Your task to perform on an android device: toggle location history Image 0: 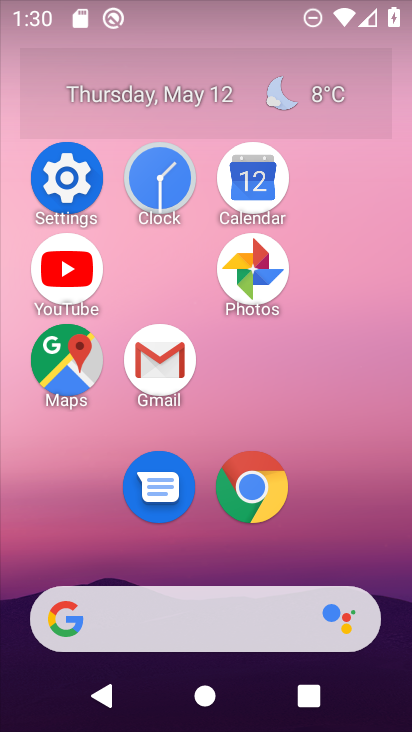
Step 0: click (46, 187)
Your task to perform on an android device: toggle location history Image 1: 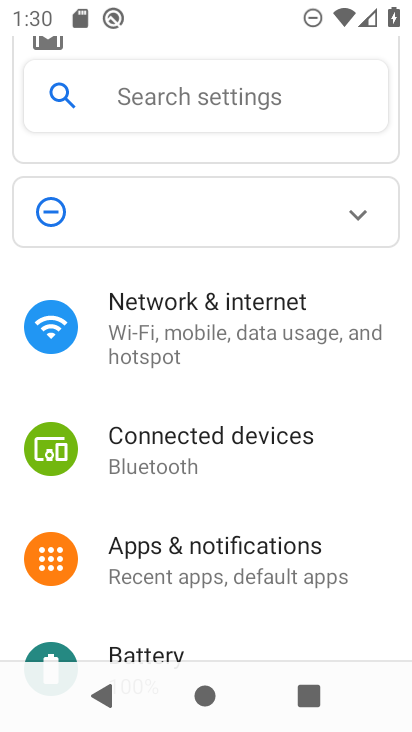
Step 1: drag from (228, 596) to (258, 172)
Your task to perform on an android device: toggle location history Image 2: 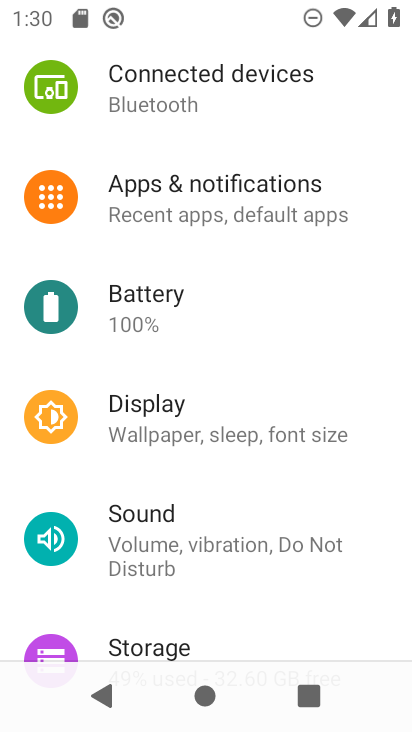
Step 2: drag from (205, 629) to (253, 221)
Your task to perform on an android device: toggle location history Image 3: 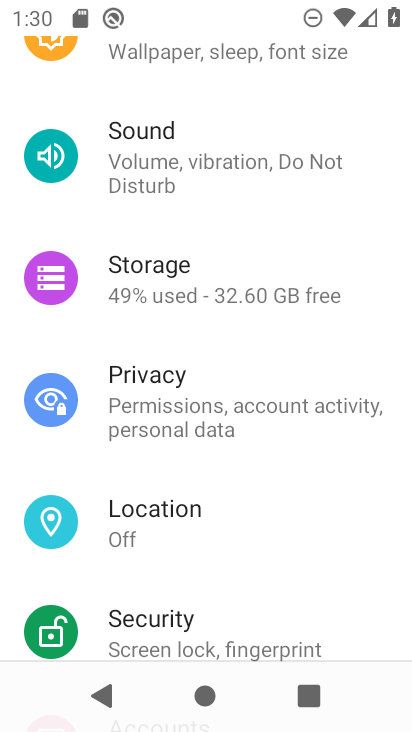
Step 3: click (215, 511)
Your task to perform on an android device: toggle location history Image 4: 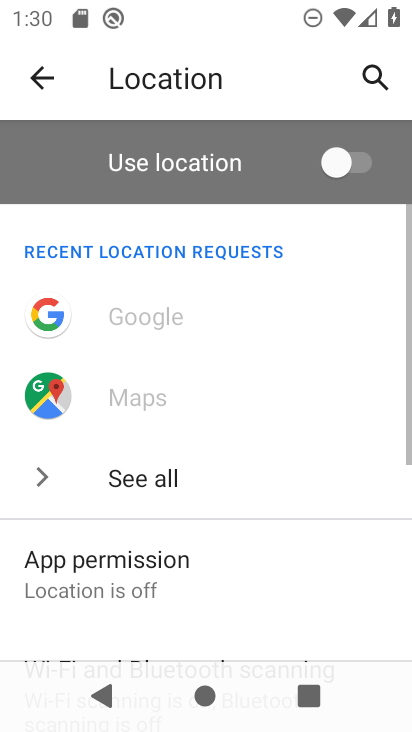
Step 4: drag from (235, 587) to (240, 161)
Your task to perform on an android device: toggle location history Image 5: 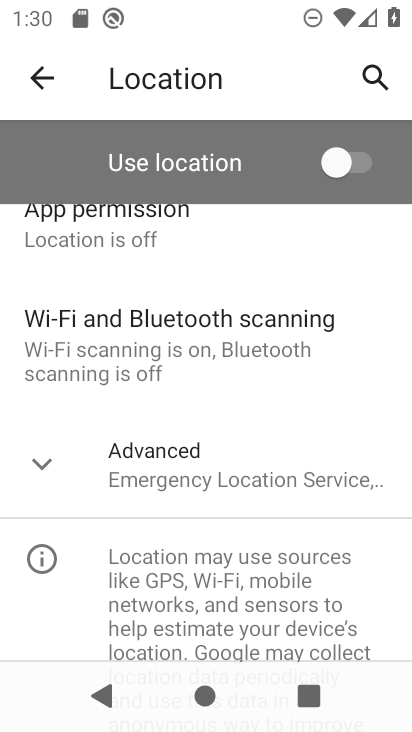
Step 5: click (272, 453)
Your task to perform on an android device: toggle location history Image 6: 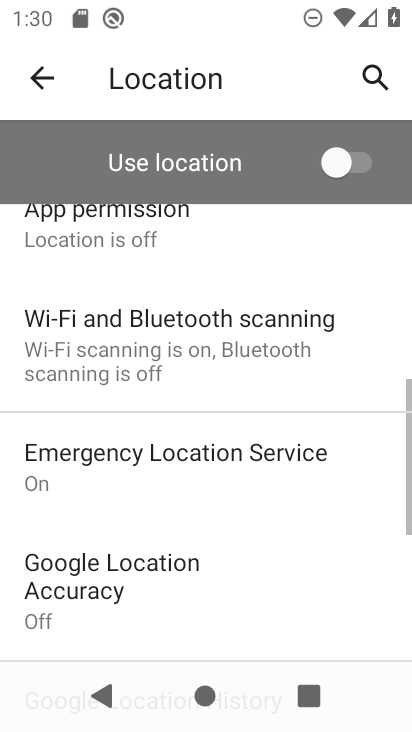
Step 6: drag from (260, 614) to (248, 237)
Your task to perform on an android device: toggle location history Image 7: 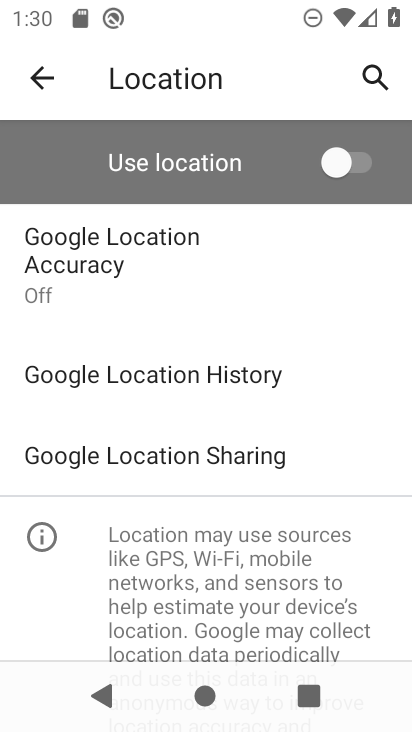
Step 7: click (282, 368)
Your task to perform on an android device: toggle location history Image 8: 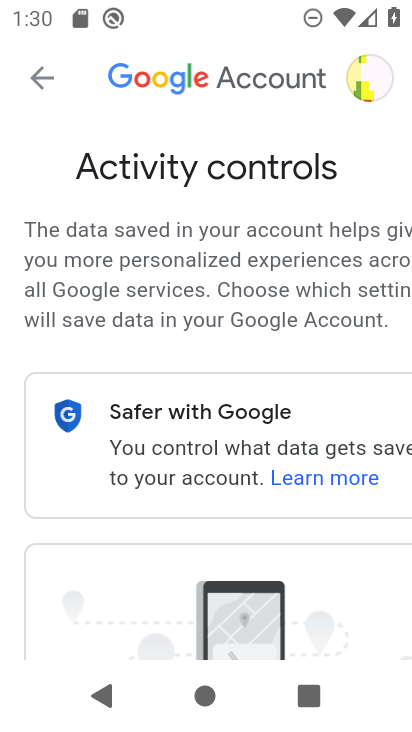
Step 8: drag from (341, 570) to (324, 127)
Your task to perform on an android device: toggle location history Image 9: 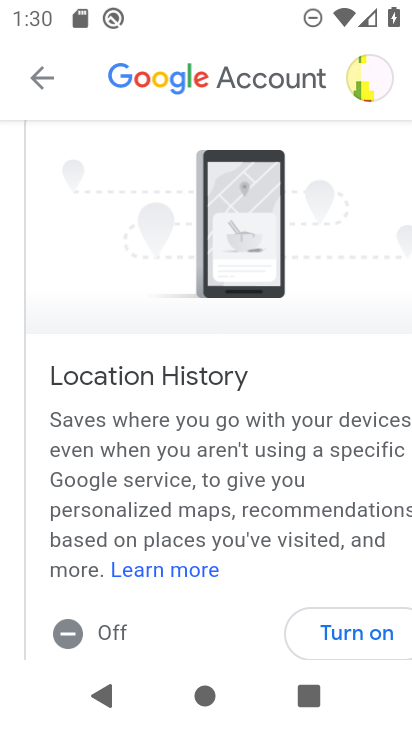
Step 9: click (359, 640)
Your task to perform on an android device: toggle location history Image 10: 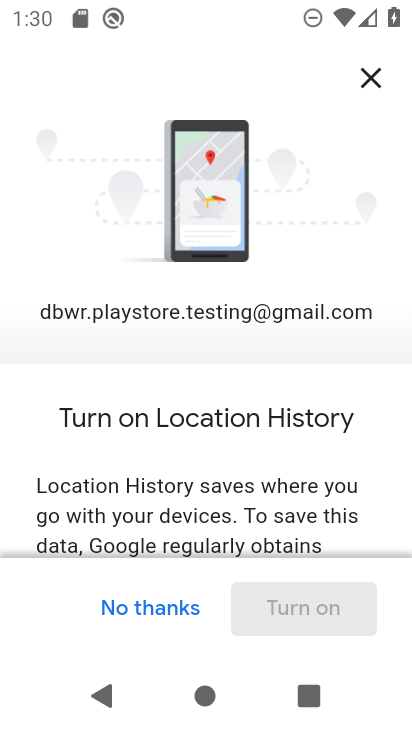
Step 10: drag from (258, 416) to (210, 87)
Your task to perform on an android device: toggle location history Image 11: 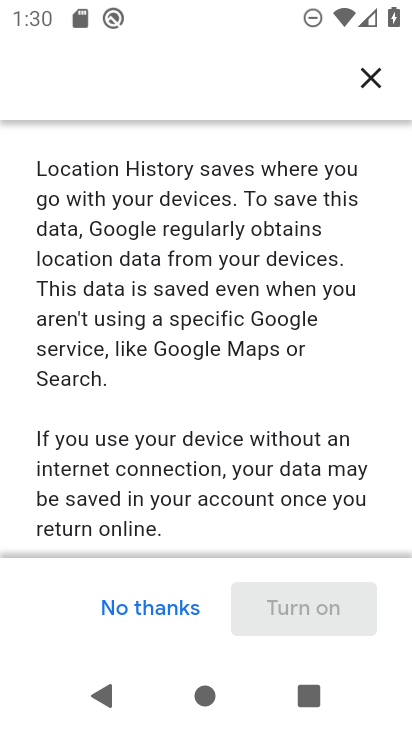
Step 11: drag from (270, 535) to (262, 75)
Your task to perform on an android device: toggle location history Image 12: 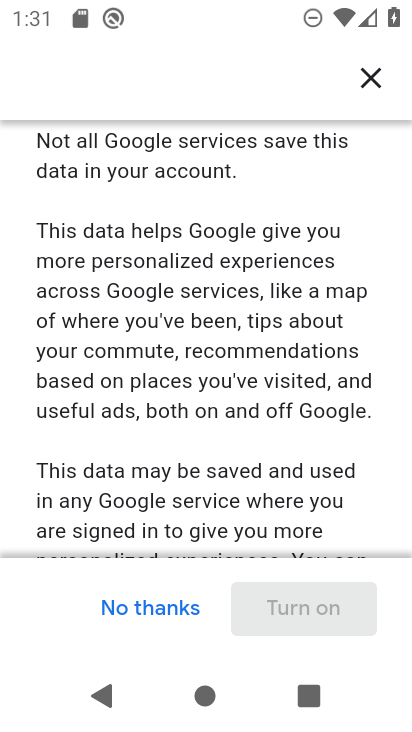
Step 12: drag from (268, 497) to (240, 75)
Your task to perform on an android device: toggle location history Image 13: 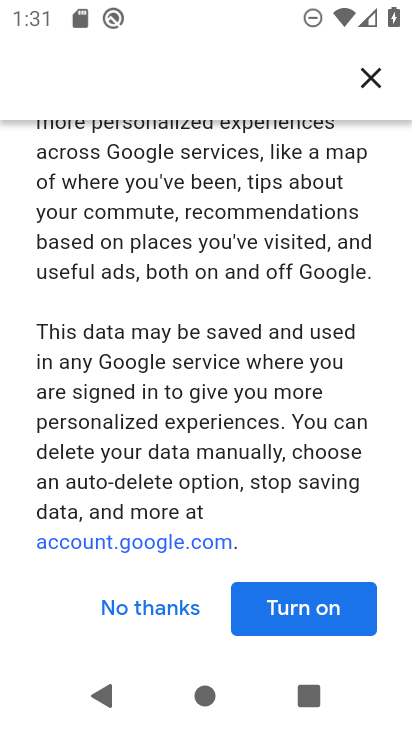
Step 13: click (282, 652)
Your task to perform on an android device: toggle location history Image 14: 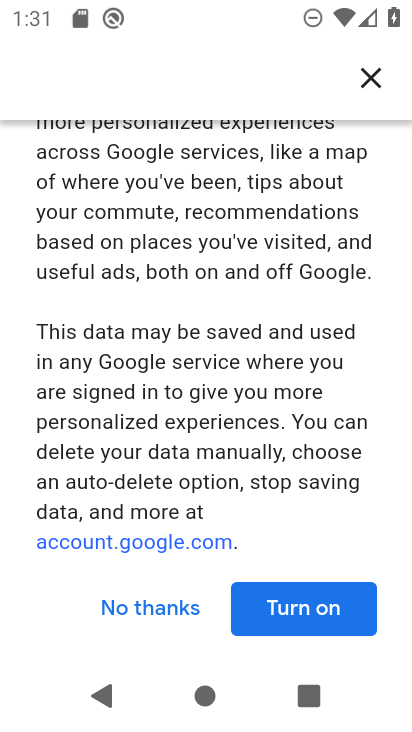
Step 14: click (293, 623)
Your task to perform on an android device: toggle location history Image 15: 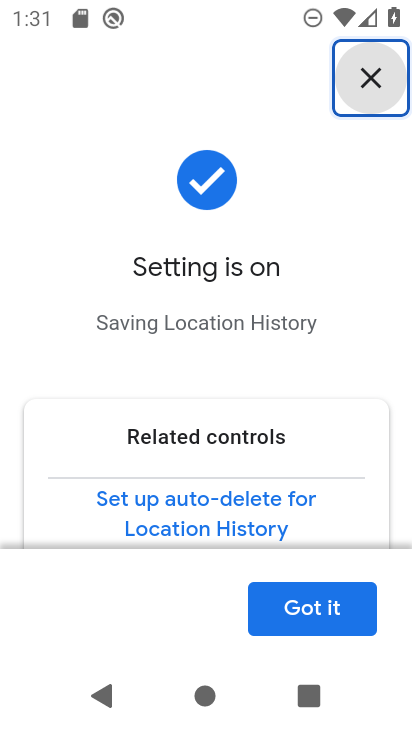
Step 15: click (296, 602)
Your task to perform on an android device: toggle location history Image 16: 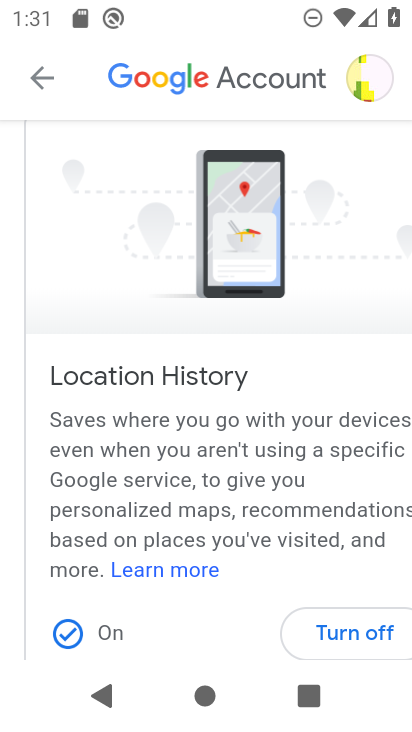
Step 16: task complete